Your task to perform on an android device: turn off improve location accuracy Image 0: 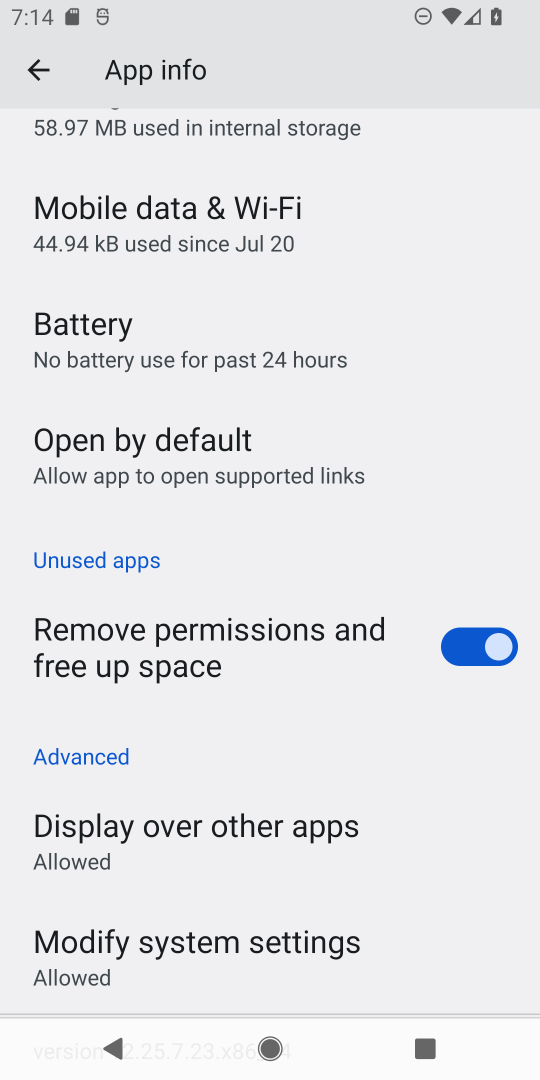
Step 0: drag from (270, 8) to (133, 0)
Your task to perform on an android device: turn off improve location accuracy Image 1: 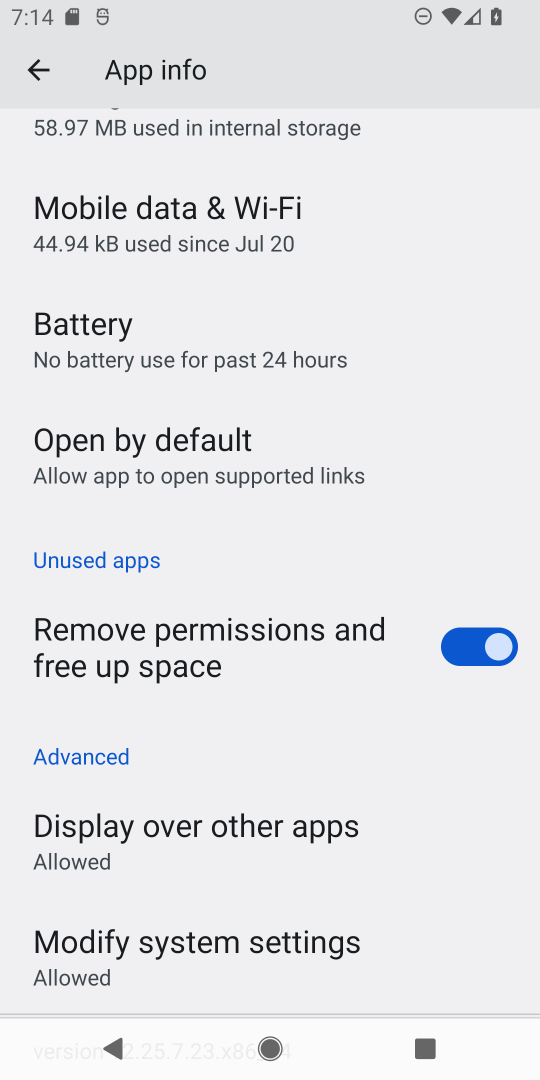
Step 1: click (46, 72)
Your task to perform on an android device: turn off improve location accuracy Image 2: 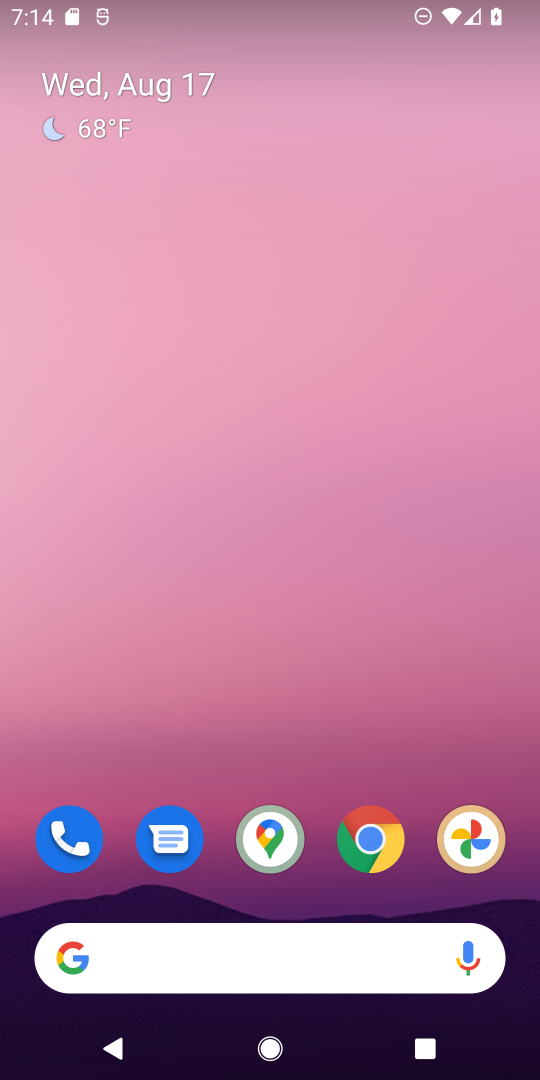
Step 2: drag from (310, 881) to (107, 216)
Your task to perform on an android device: turn off improve location accuracy Image 3: 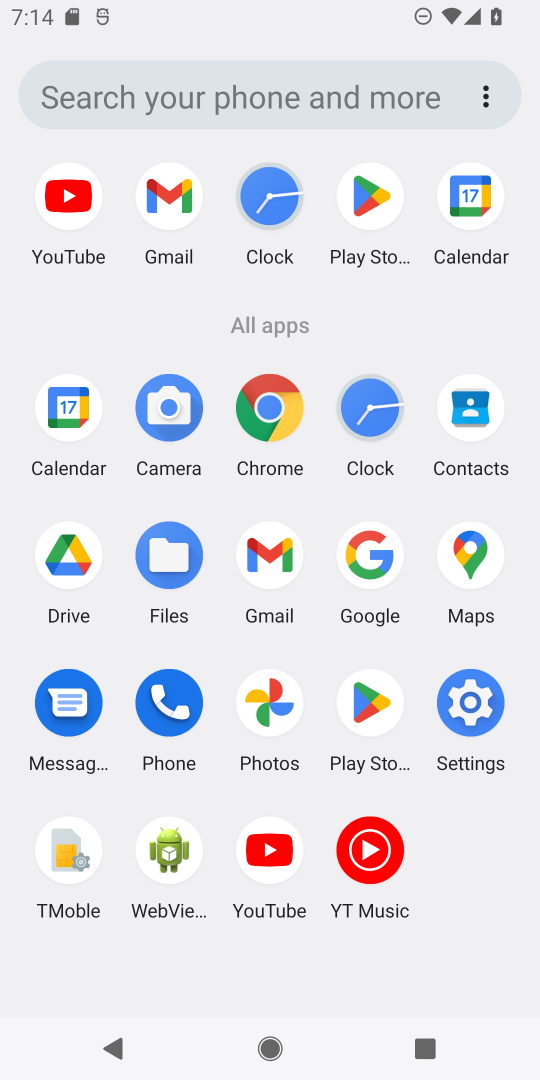
Step 3: click (476, 716)
Your task to perform on an android device: turn off improve location accuracy Image 4: 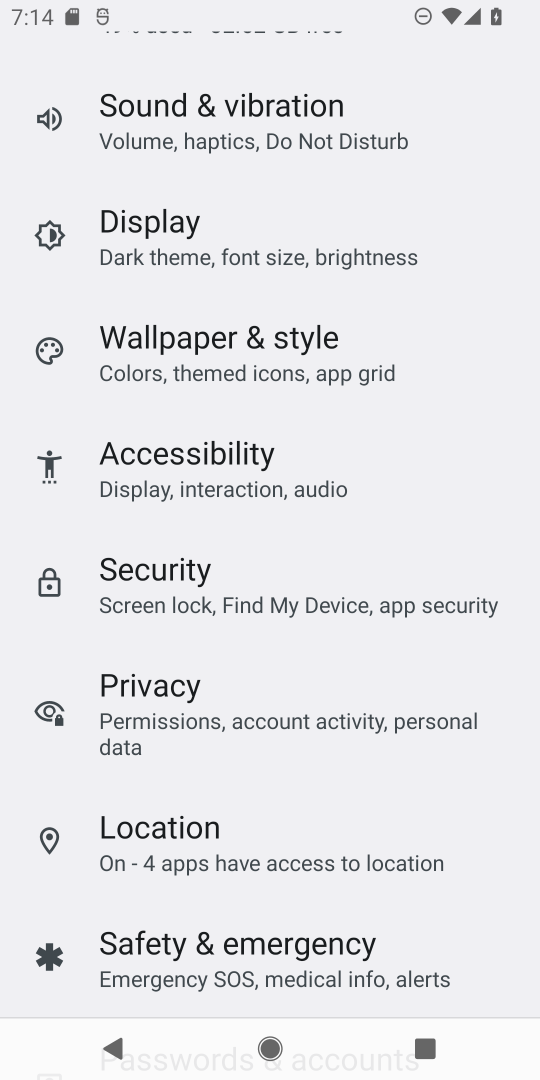
Step 4: click (211, 841)
Your task to perform on an android device: turn off improve location accuracy Image 5: 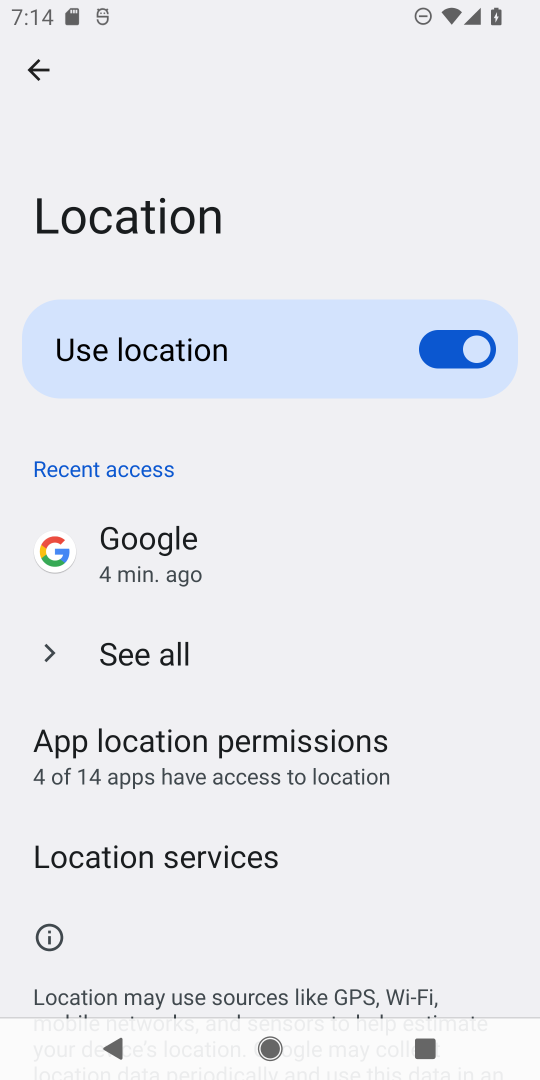
Step 5: click (146, 863)
Your task to perform on an android device: turn off improve location accuracy Image 6: 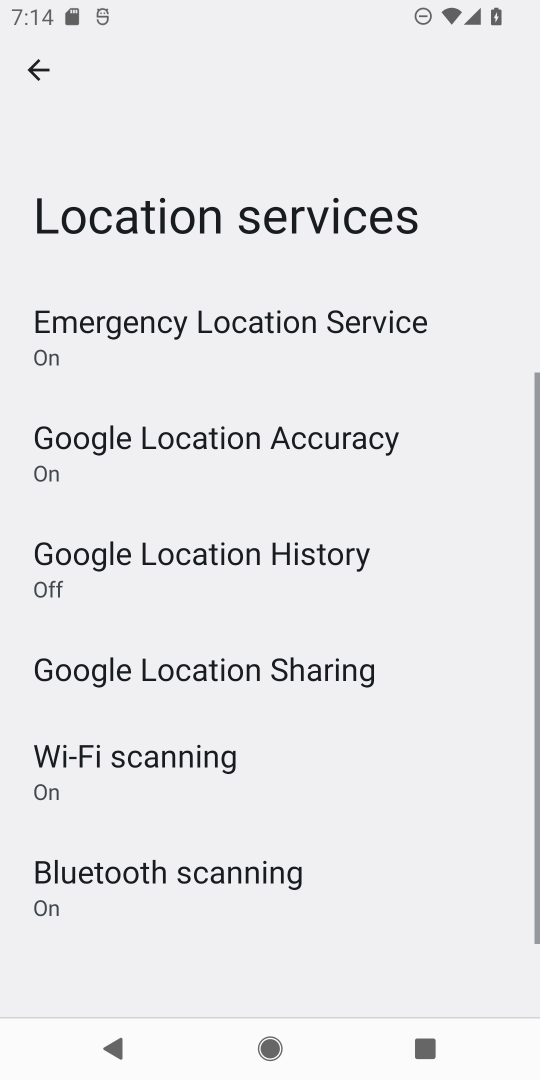
Step 6: drag from (146, 863) to (153, 609)
Your task to perform on an android device: turn off improve location accuracy Image 7: 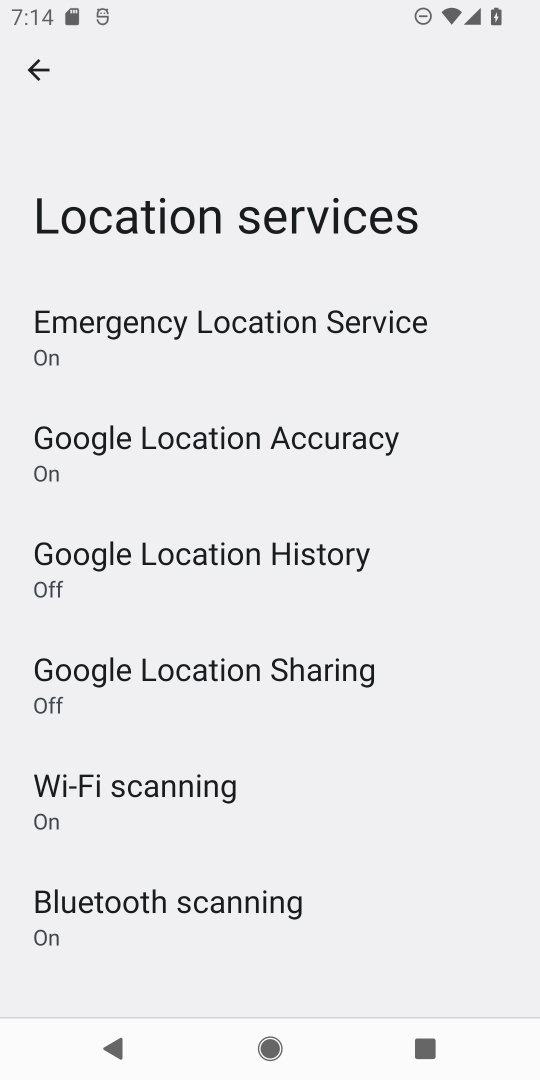
Step 7: click (127, 445)
Your task to perform on an android device: turn off improve location accuracy Image 8: 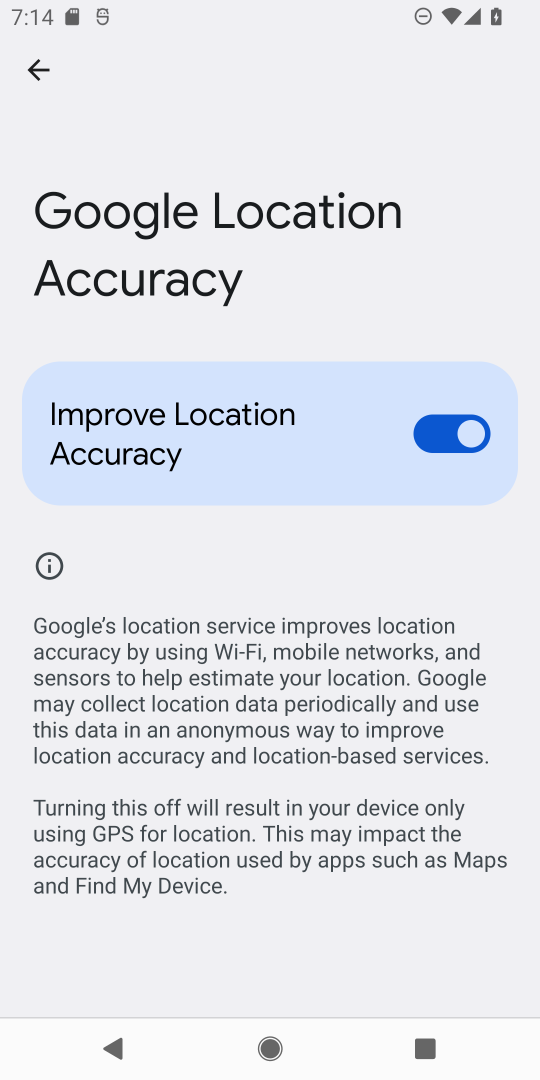
Step 8: click (412, 427)
Your task to perform on an android device: turn off improve location accuracy Image 9: 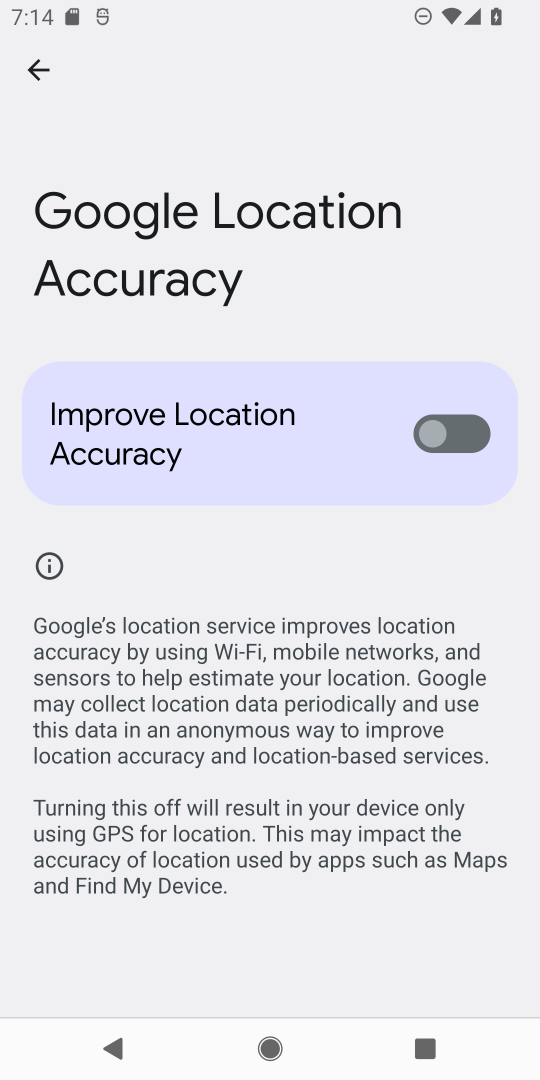
Step 9: task complete